Your task to perform on an android device: change timer sound Image 0: 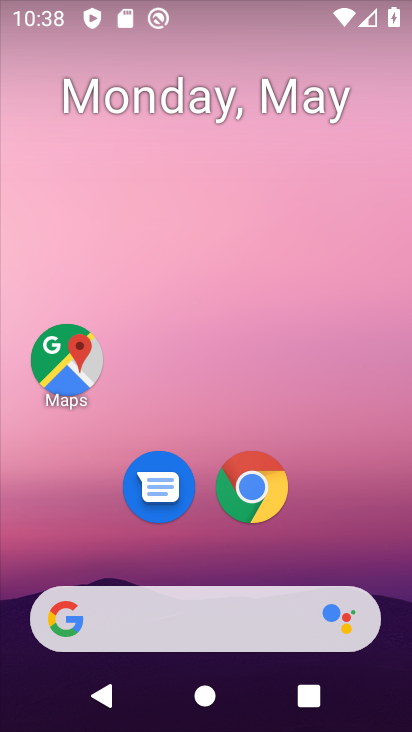
Step 0: drag from (392, 585) to (392, 315)
Your task to perform on an android device: change timer sound Image 1: 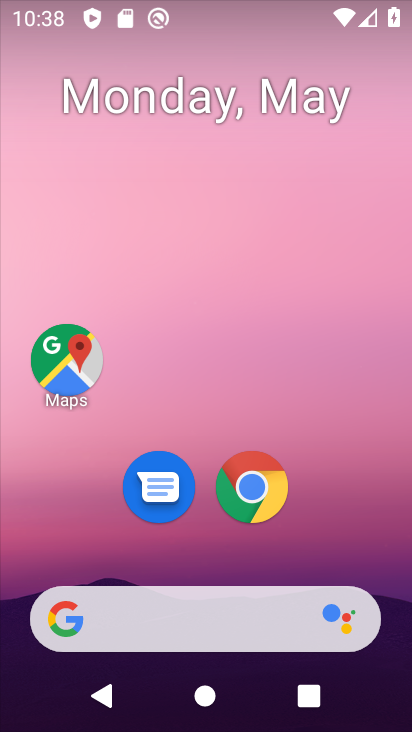
Step 1: drag from (395, 609) to (402, 217)
Your task to perform on an android device: change timer sound Image 2: 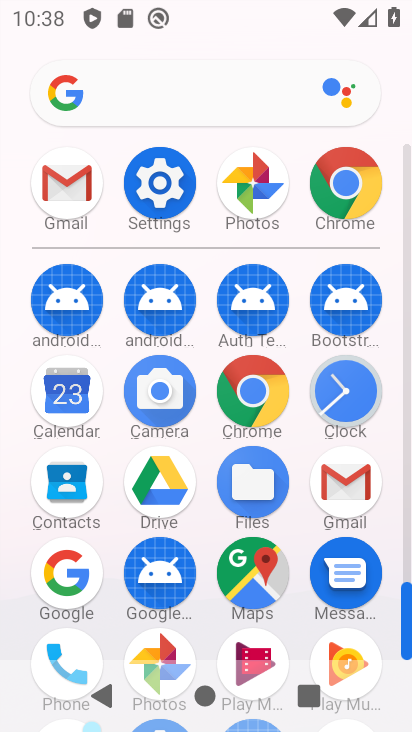
Step 2: click (338, 395)
Your task to perform on an android device: change timer sound Image 3: 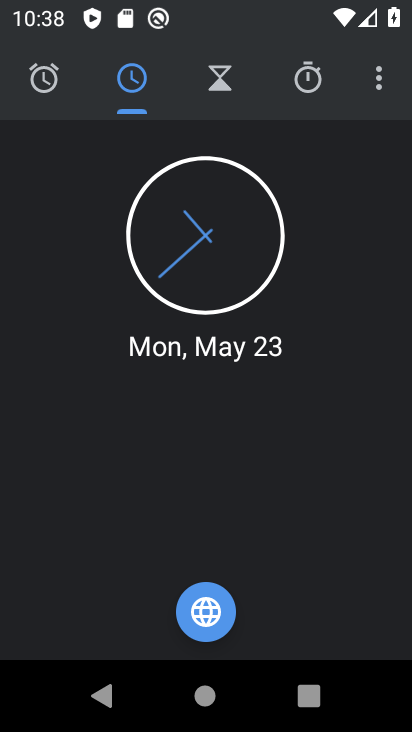
Step 3: click (383, 86)
Your task to perform on an android device: change timer sound Image 4: 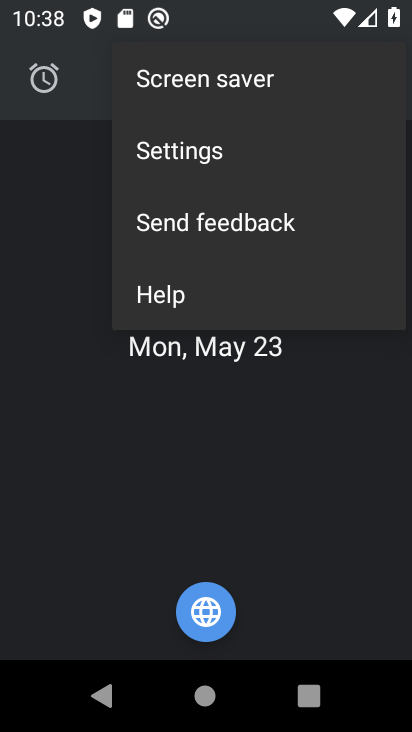
Step 4: click (256, 181)
Your task to perform on an android device: change timer sound Image 5: 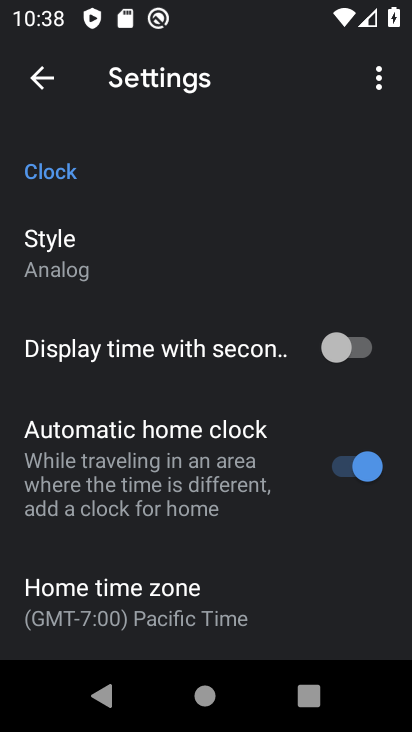
Step 5: drag from (340, 545) to (350, 434)
Your task to perform on an android device: change timer sound Image 6: 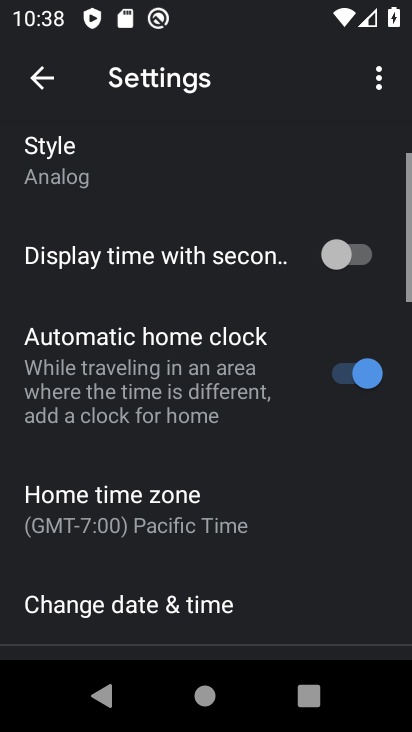
Step 6: drag from (351, 546) to (361, 444)
Your task to perform on an android device: change timer sound Image 7: 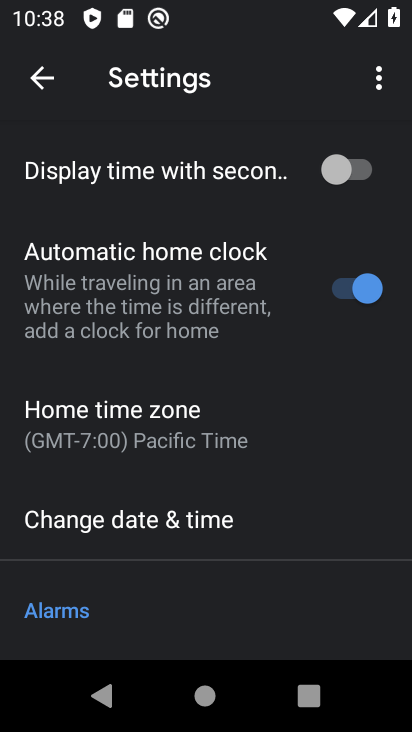
Step 7: drag from (383, 596) to (387, 505)
Your task to perform on an android device: change timer sound Image 8: 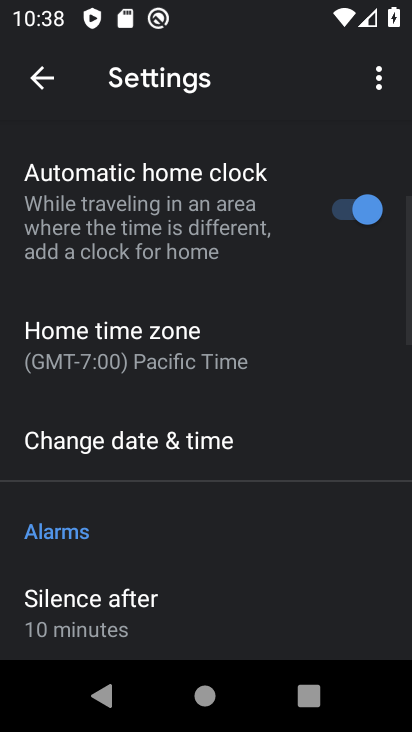
Step 8: drag from (382, 593) to (383, 535)
Your task to perform on an android device: change timer sound Image 9: 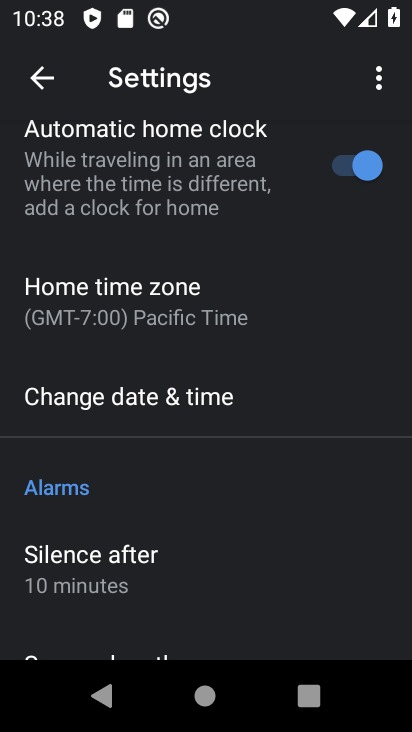
Step 9: drag from (388, 568) to (385, 531)
Your task to perform on an android device: change timer sound Image 10: 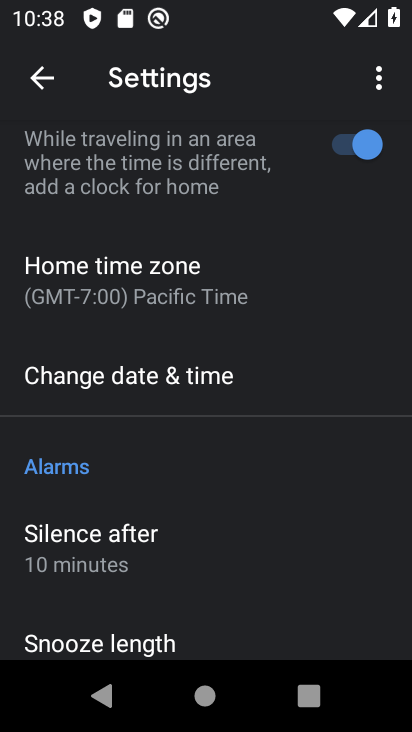
Step 10: drag from (382, 590) to (385, 490)
Your task to perform on an android device: change timer sound Image 11: 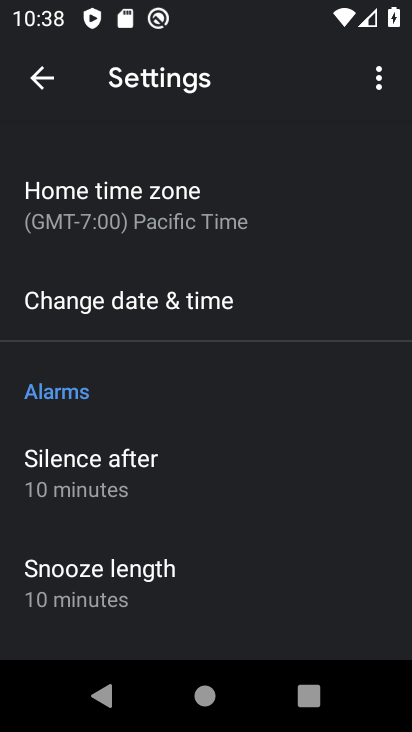
Step 11: drag from (377, 596) to (377, 514)
Your task to perform on an android device: change timer sound Image 12: 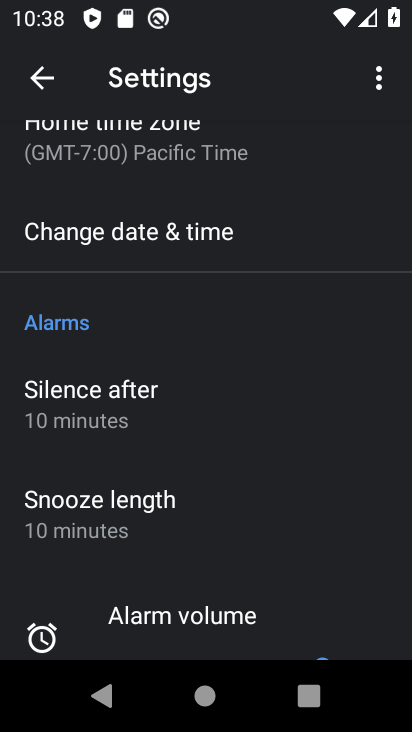
Step 12: drag from (376, 619) to (384, 526)
Your task to perform on an android device: change timer sound Image 13: 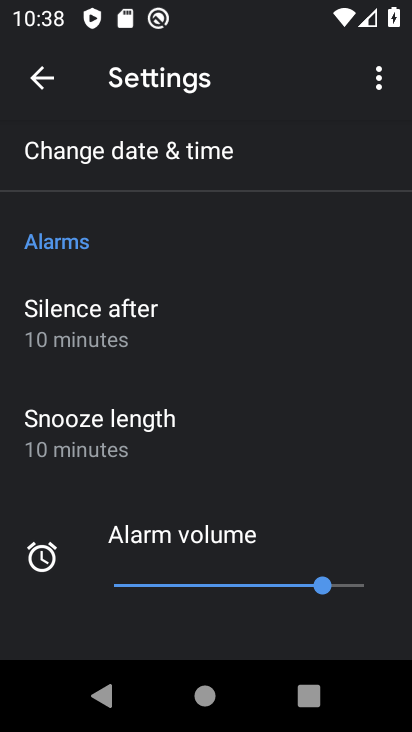
Step 13: drag from (387, 628) to (390, 529)
Your task to perform on an android device: change timer sound Image 14: 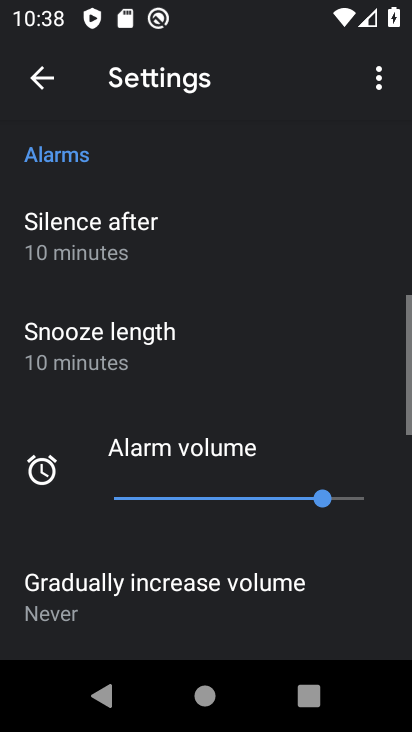
Step 14: drag from (391, 629) to (404, 513)
Your task to perform on an android device: change timer sound Image 15: 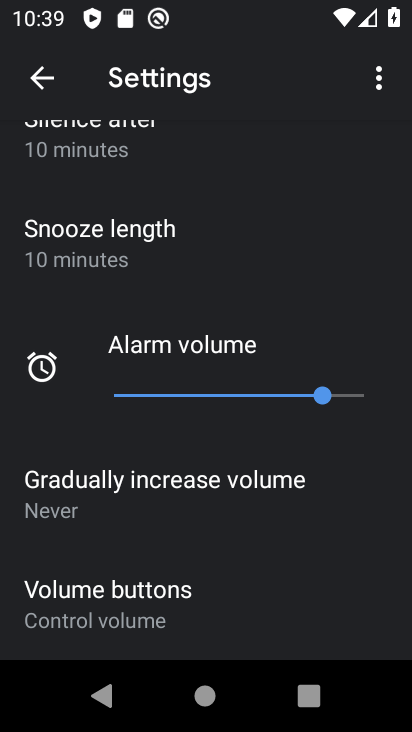
Step 15: click (410, 475)
Your task to perform on an android device: change timer sound Image 16: 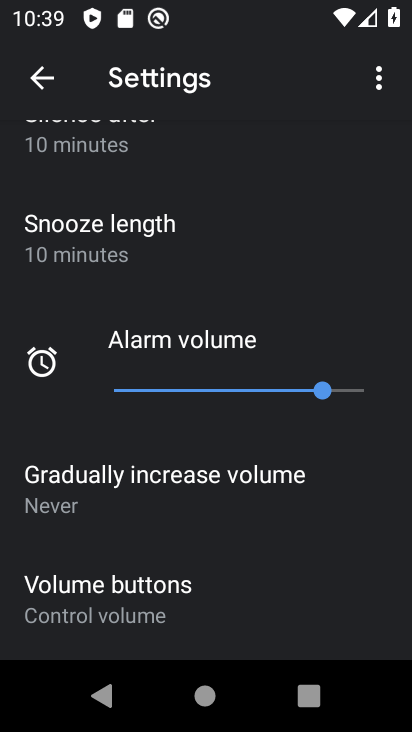
Step 16: drag from (373, 618) to (374, 508)
Your task to perform on an android device: change timer sound Image 17: 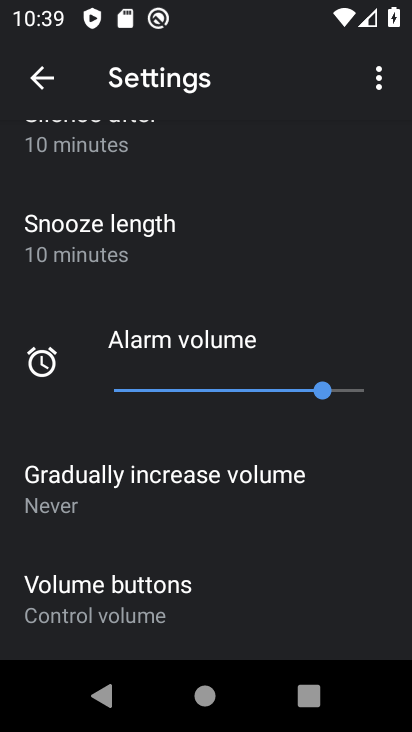
Step 17: drag from (354, 585) to (360, 506)
Your task to perform on an android device: change timer sound Image 18: 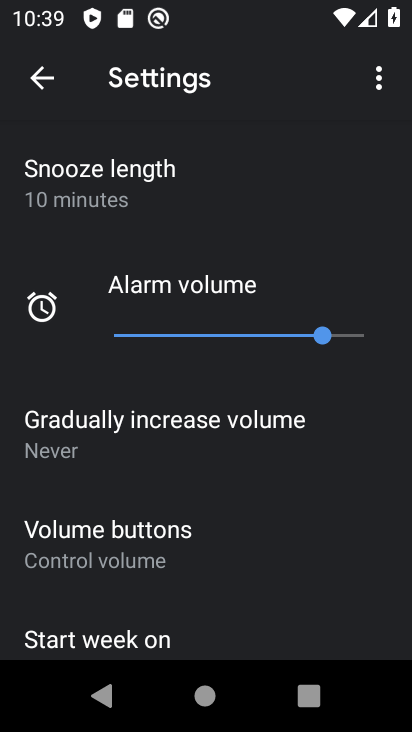
Step 18: drag from (357, 613) to (360, 521)
Your task to perform on an android device: change timer sound Image 19: 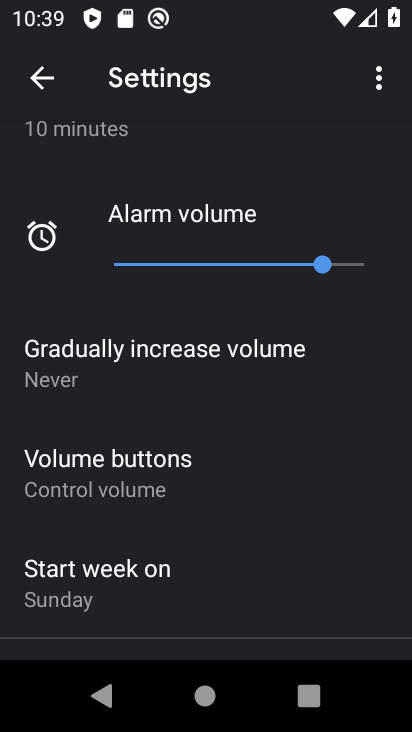
Step 19: drag from (356, 648) to (359, 530)
Your task to perform on an android device: change timer sound Image 20: 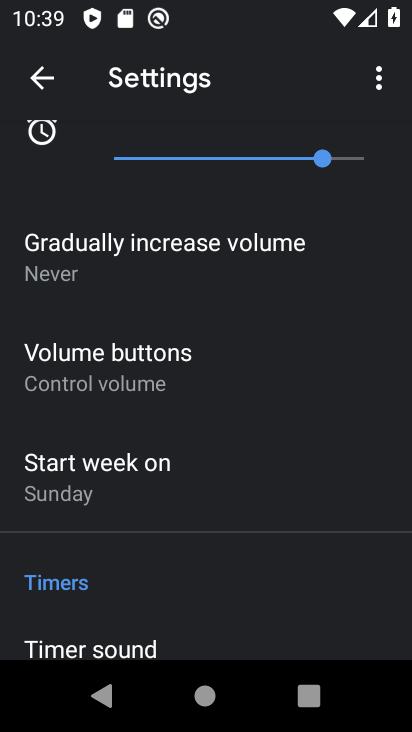
Step 20: drag from (359, 630) to (369, 507)
Your task to perform on an android device: change timer sound Image 21: 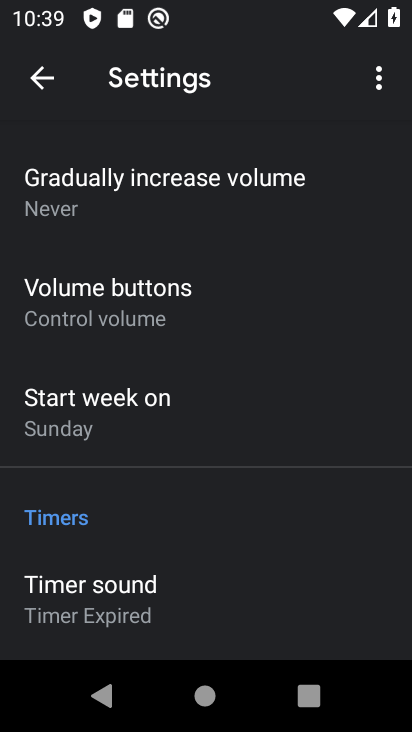
Step 21: drag from (344, 611) to (352, 505)
Your task to perform on an android device: change timer sound Image 22: 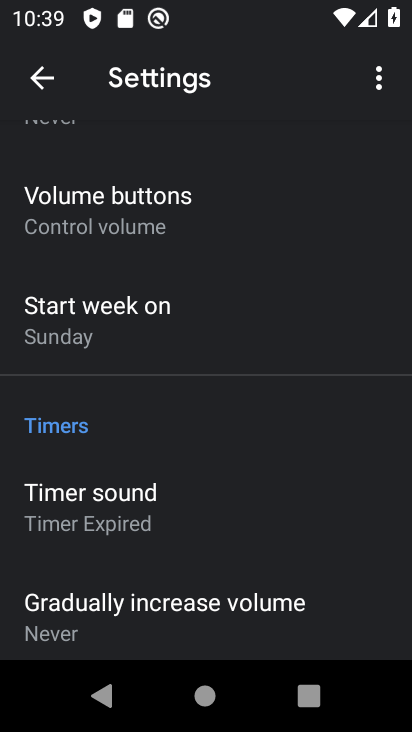
Step 22: click (159, 531)
Your task to perform on an android device: change timer sound Image 23: 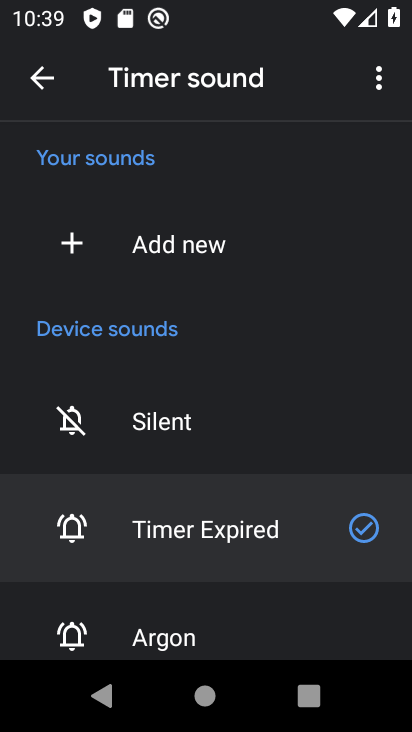
Step 23: click (179, 632)
Your task to perform on an android device: change timer sound Image 24: 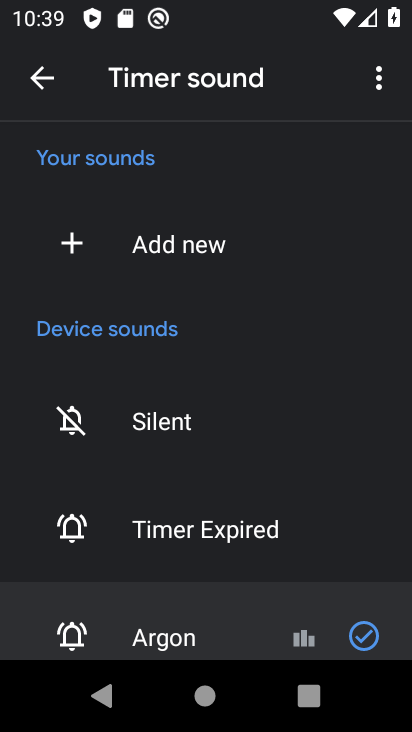
Step 24: task complete